Your task to perform on an android device: Open battery settings Image 0: 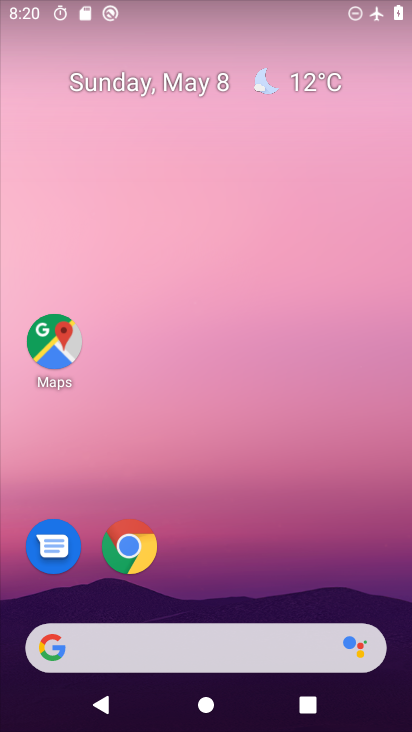
Step 0: drag from (278, 555) to (294, 64)
Your task to perform on an android device: Open battery settings Image 1: 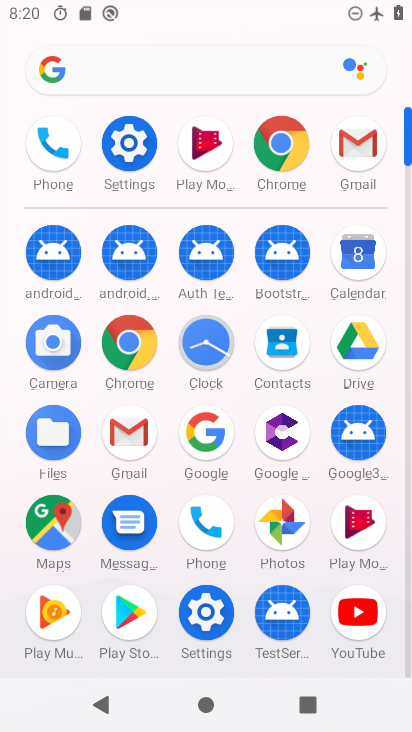
Step 1: click (123, 131)
Your task to perform on an android device: Open battery settings Image 2: 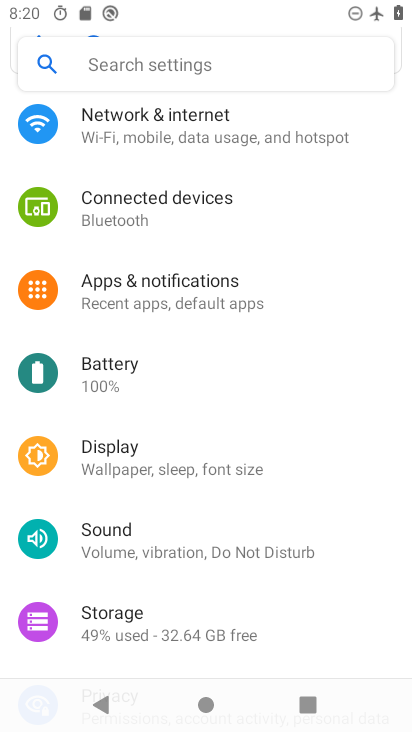
Step 2: click (179, 380)
Your task to perform on an android device: Open battery settings Image 3: 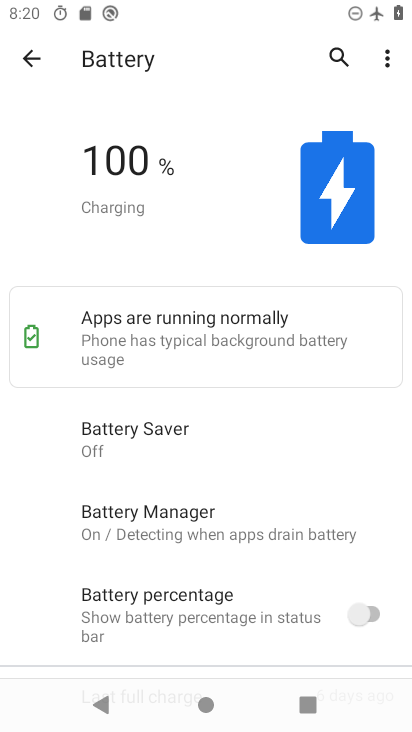
Step 3: task complete